Your task to perform on an android device: Open Google Chrome and open the bookmarks view Image 0: 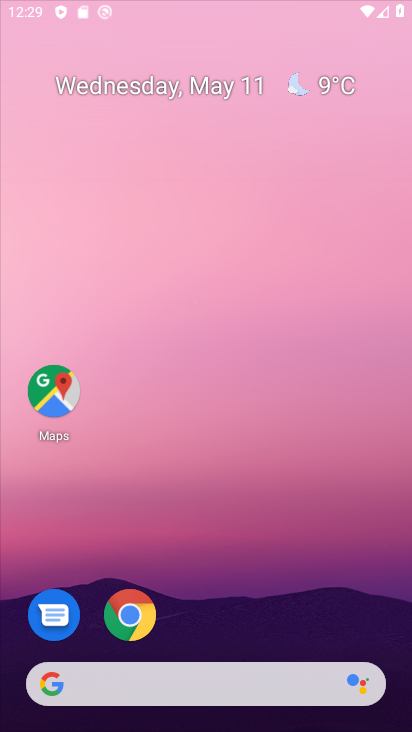
Step 0: drag from (290, 623) to (286, 97)
Your task to perform on an android device: Open Google Chrome and open the bookmarks view Image 1: 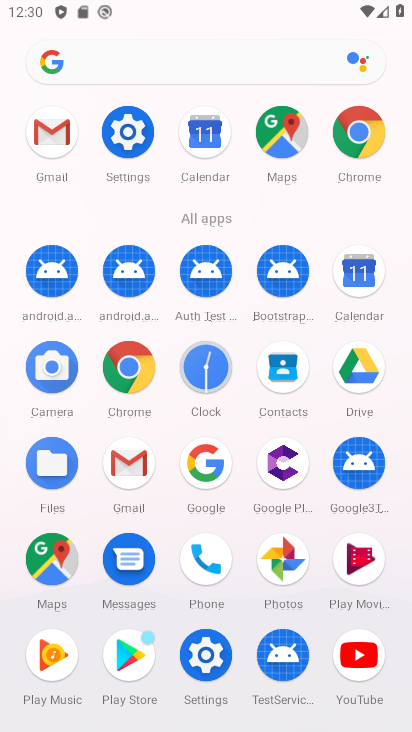
Step 1: click (362, 130)
Your task to perform on an android device: Open Google Chrome and open the bookmarks view Image 2: 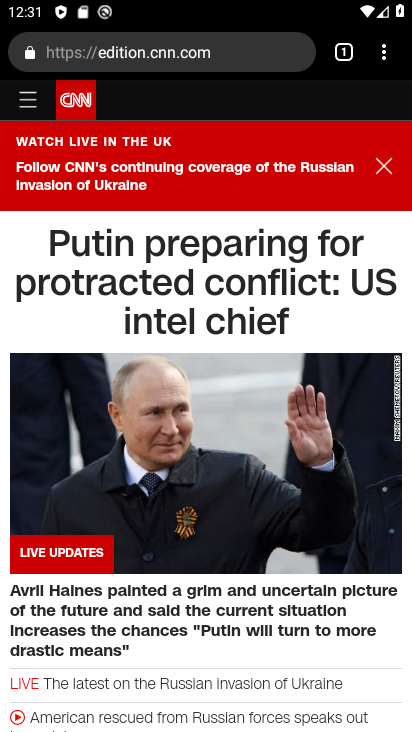
Step 2: click (360, 72)
Your task to perform on an android device: Open Google Chrome and open the bookmarks view Image 3: 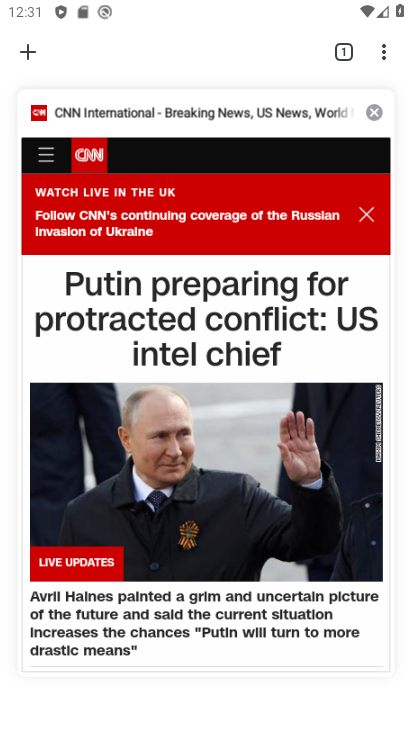
Step 3: click (378, 61)
Your task to perform on an android device: Open Google Chrome and open the bookmarks view Image 4: 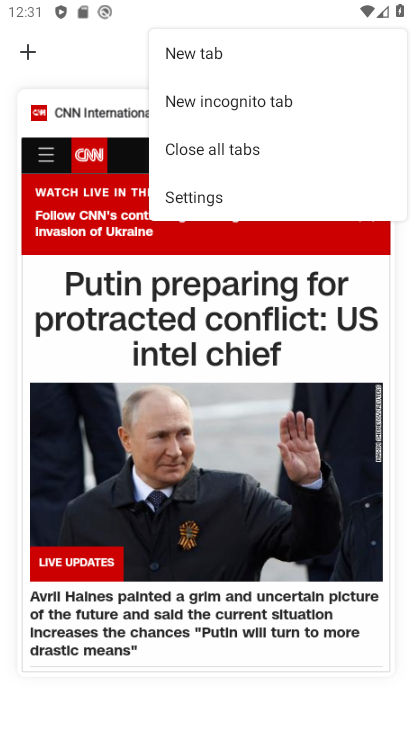
Step 4: click (230, 149)
Your task to perform on an android device: Open Google Chrome and open the bookmarks view Image 5: 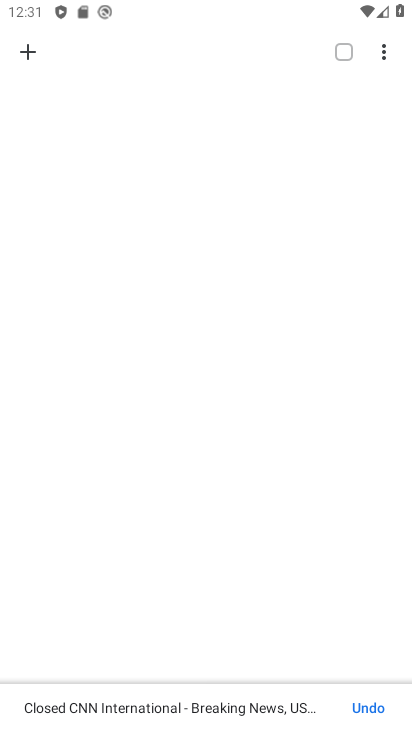
Step 5: click (380, 57)
Your task to perform on an android device: Open Google Chrome and open the bookmarks view Image 6: 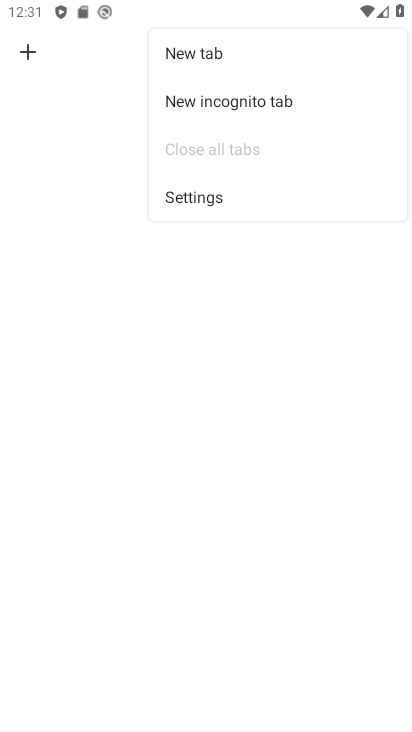
Step 6: click (242, 50)
Your task to perform on an android device: Open Google Chrome and open the bookmarks view Image 7: 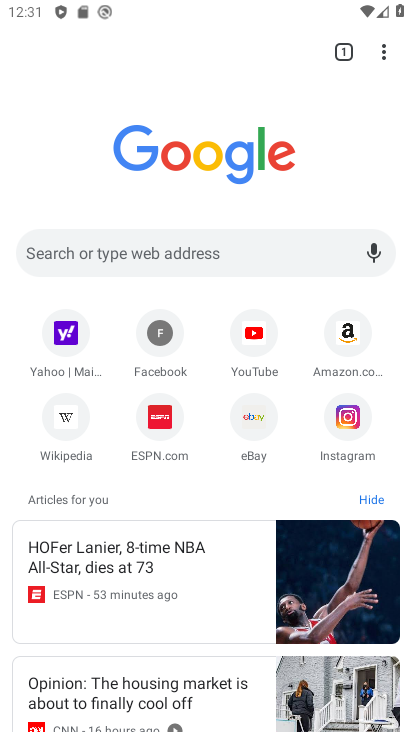
Step 7: click (391, 59)
Your task to perform on an android device: Open Google Chrome and open the bookmarks view Image 8: 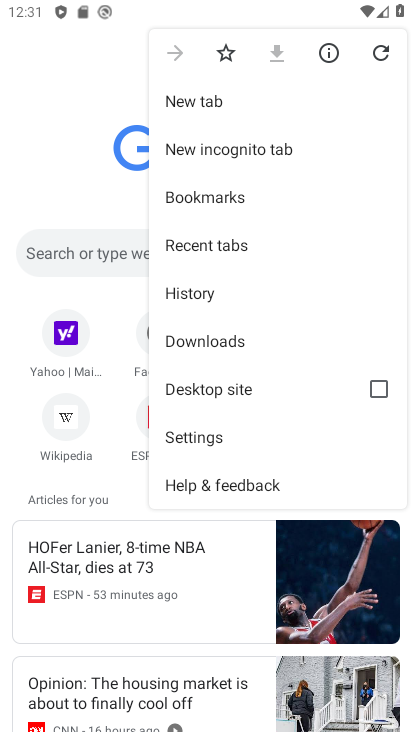
Step 8: click (281, 200)
Your task to perform on an android device: Open Google Chrome and open the bookmarks view Image 9: 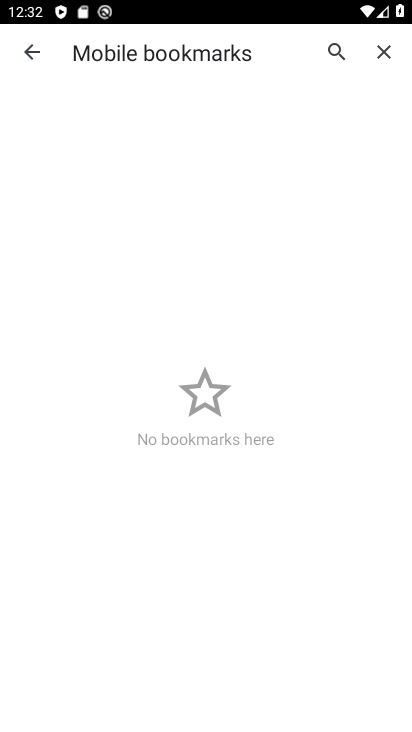
Step 9: task complete